Your task to perform on an android device: turn vacation reply on in the gmail app Image 0: 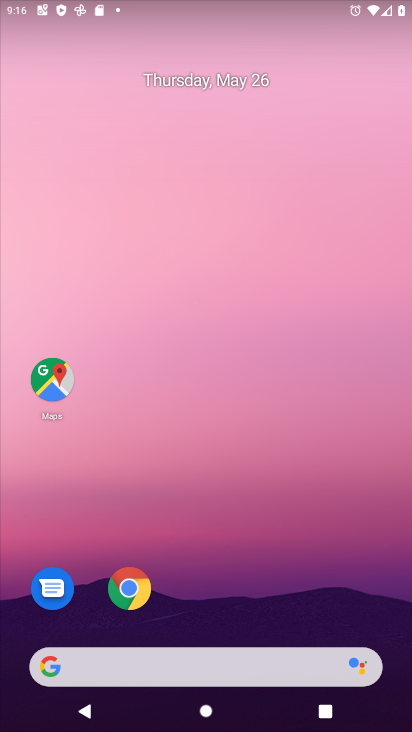
Step 0: drag from (383, 623) to (267, 6)
Your task to perform on an android device: turn vacation reply on in the gmail app Image 1: 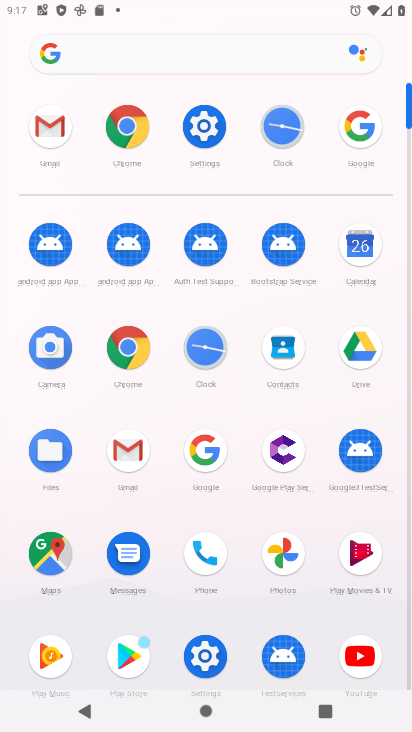
Step 1: click (124, 436)
Your task to perform on an android device: turn vacation reply on in the gmail app Image 2: 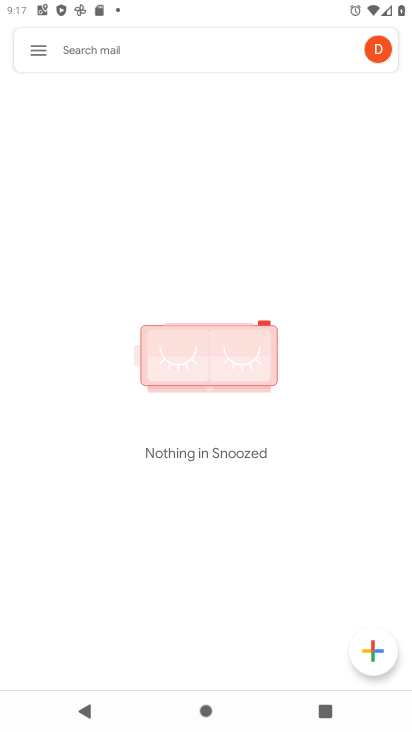
Step 2: click (35, 55)
Your task to perform on an android device: turn vacation reply on in the gmail app Image 3: 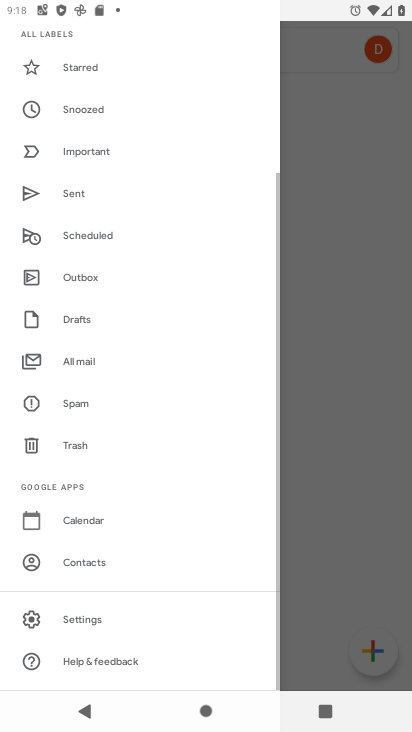
Step 3: click (99, 610)
Your task to perform on an android device: turn vacation reply on in the gmail app Image 4: 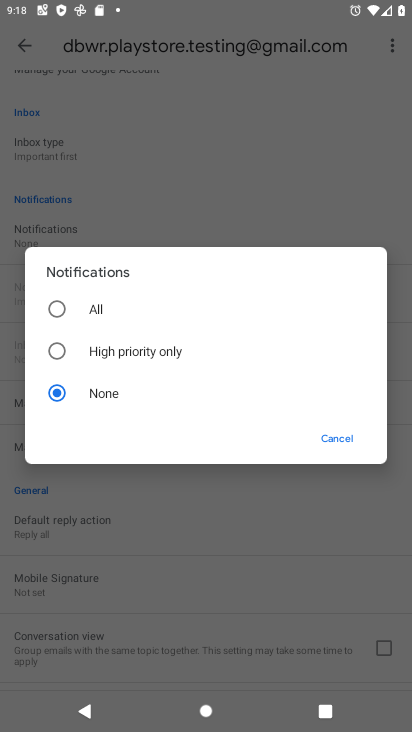
Step 4: click (345, 437)
Your task to perform on an android device: turn vacation reply on in the gmail app Image 5: 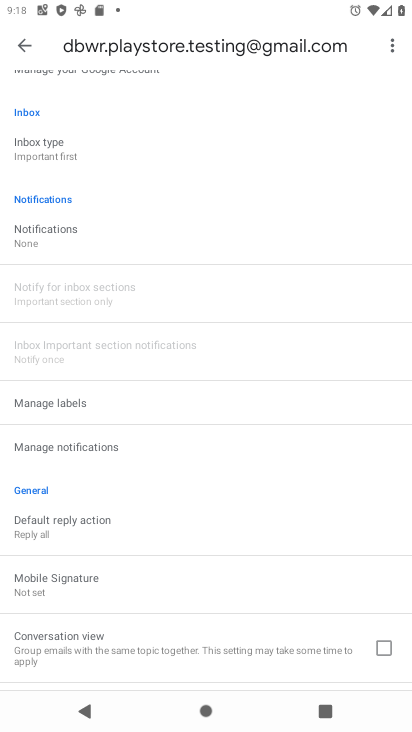
Step 5: drag from (154, 622) to (173, 113)
Your task to perform on an android device: turn vacation reply on in the gmail app Image 6: 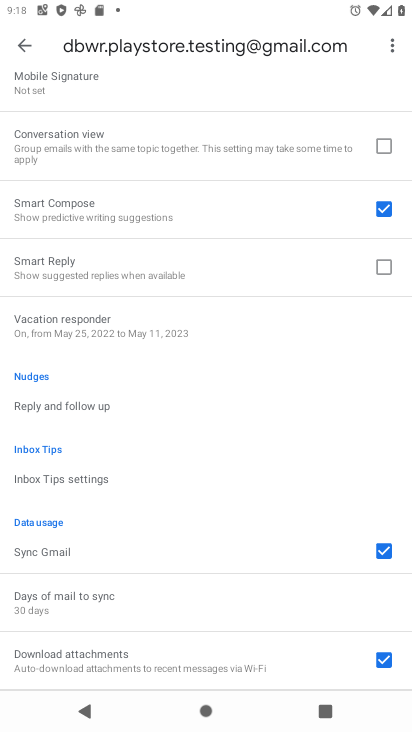
Step 6: click (119, 329)
Your task to perform on an android device: turn vacation reply on in the gmail app Image 7: 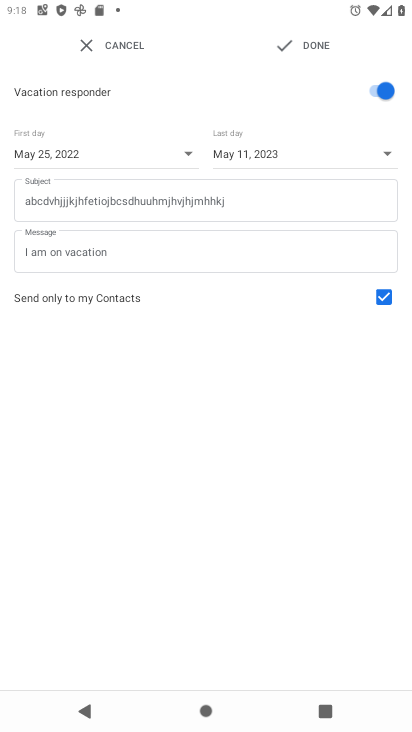
Step 7: task complete